Your task to perform on an android device: Open calendar and show me the third week of next month Image 0: 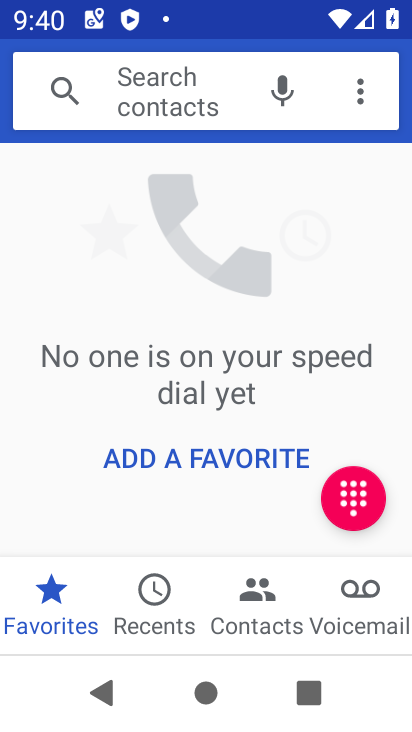
Step 0: press home button
Your task to perform on an android device: Open calendar and show me the third week of next month Image 1: 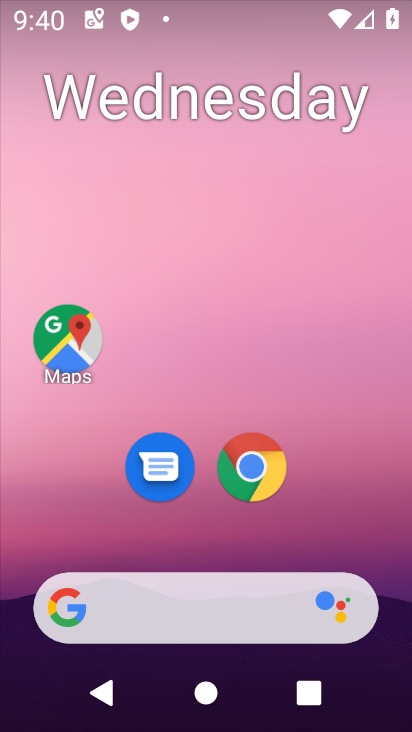
Step 1: click (213, 113)
Your task to perform on an android device: Open calendar and show me the third week of next month Image 2: 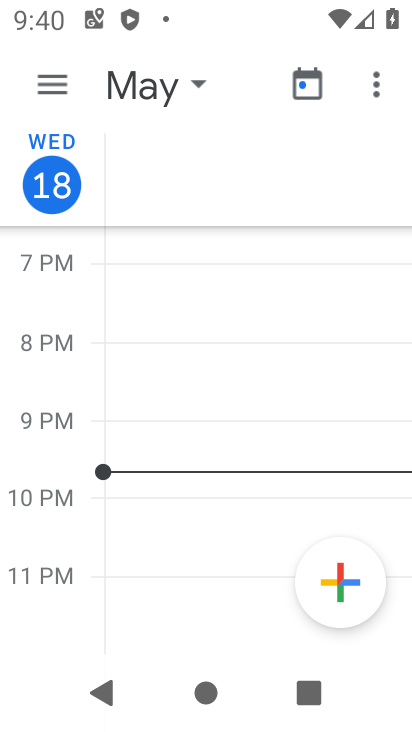
Step 2: click (44, 89)
Your task to perform on an android device: Open calendar and show me the third week of next month Image 3: 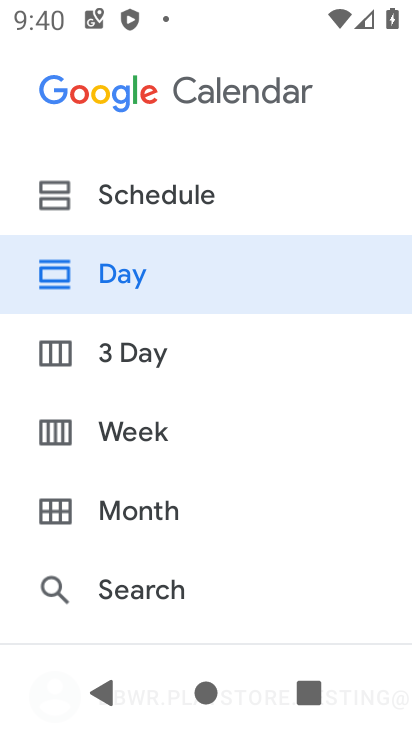
Step 3: click (151, 432)
Your task to perform on an android device: Open calendar and show me the third week of next month Image 4: 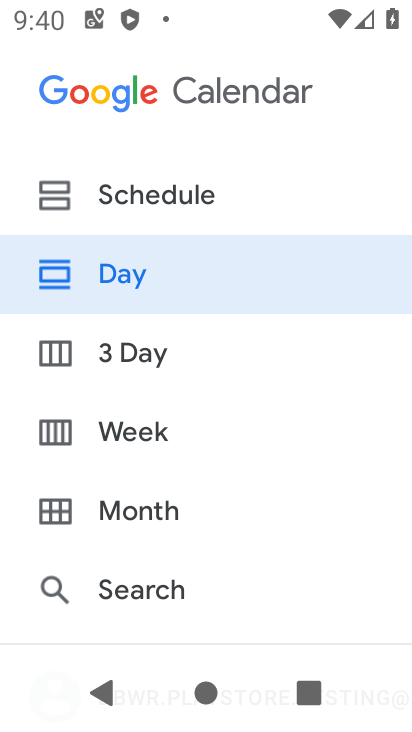
Step 4: click (142, 437)
Your task to perform on an android device: Open calendar and show me the third week of next month Image 5: 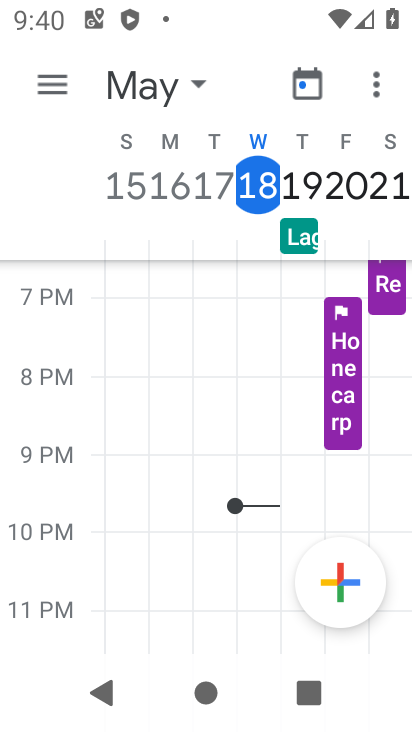
Step 5: click (193, 83)
Your task to perform on an android device: Open calendar and show me the third week of next month Image 6: 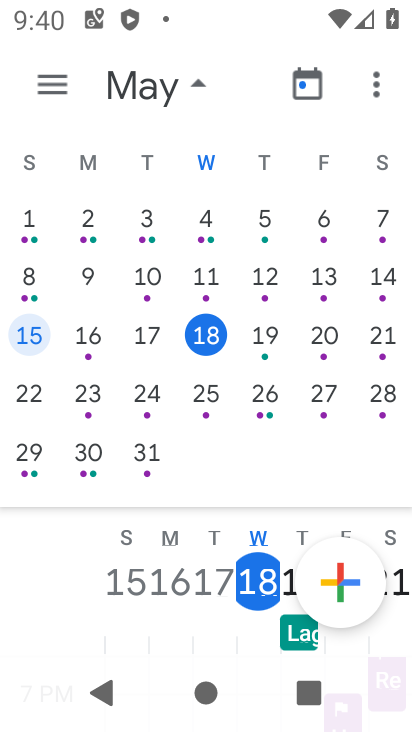
Step 6: drag from (343, 253) to (13, 234)
Your task to perform on an android device: Open calendar and show me the third week of next month Image 7: 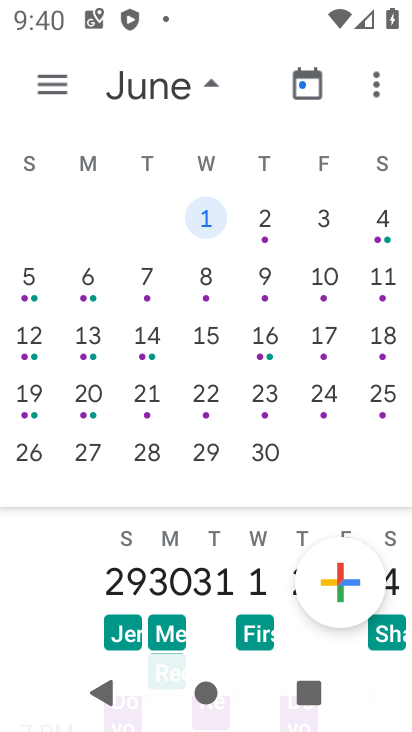
Step 7: click (39, 348)
Your task to perform on an android device: Open calendar and show me the third week of next month Image 8: 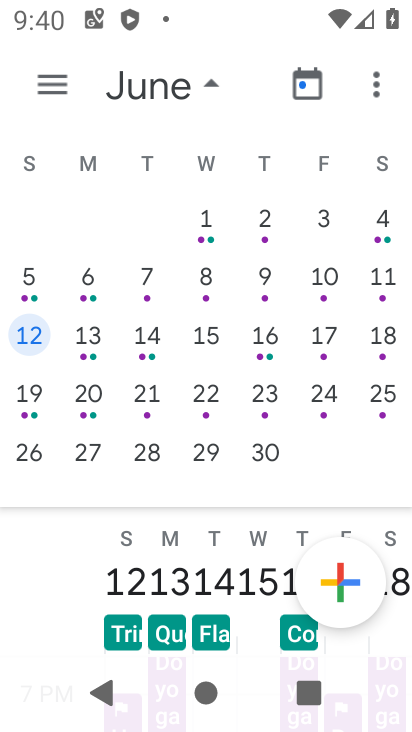
Step 8: task complete